Your task to perform on an android device: find which apps use the phone's location Image 0: 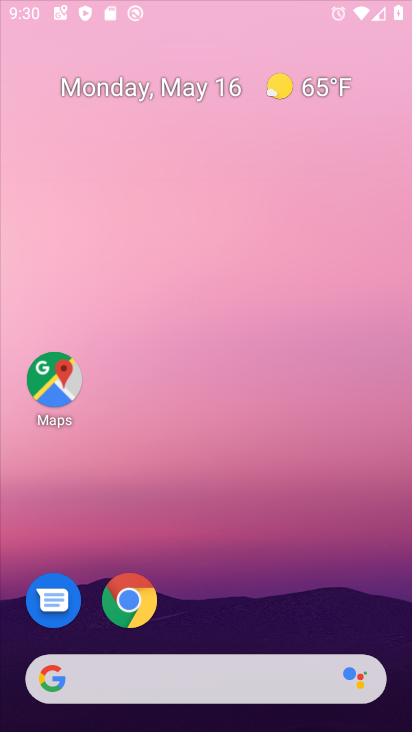
Step 0: drag from (287, 114) to (293, 78)
Your task to perform on an android device: find which apps use the phone's location Image 1: 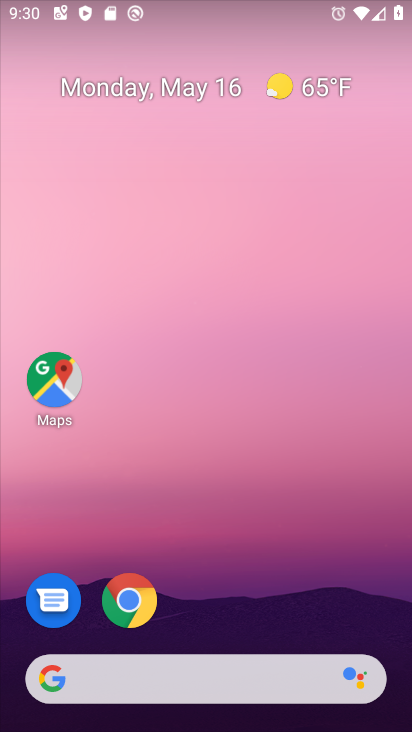
Step 1: drag from (204, 626) to (238, 4)
Your task to perform on an android device: find which apps use the phone's location Image 2: 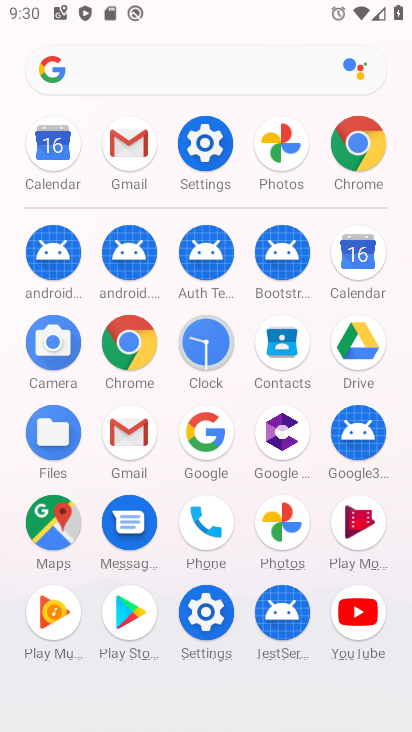
Step 2: click (208, 134)
Your task to perform on an android device: find which apps use the phone's location Image 3: 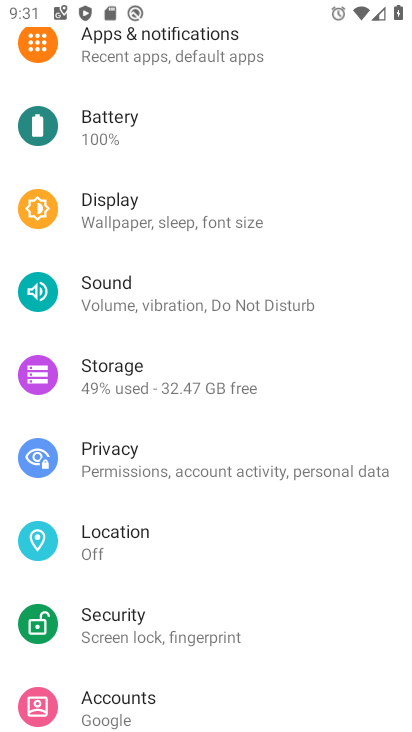
Step 3: click (138, 553)
Your task to perform on an android device: find which apps use the phone's location Image 4: 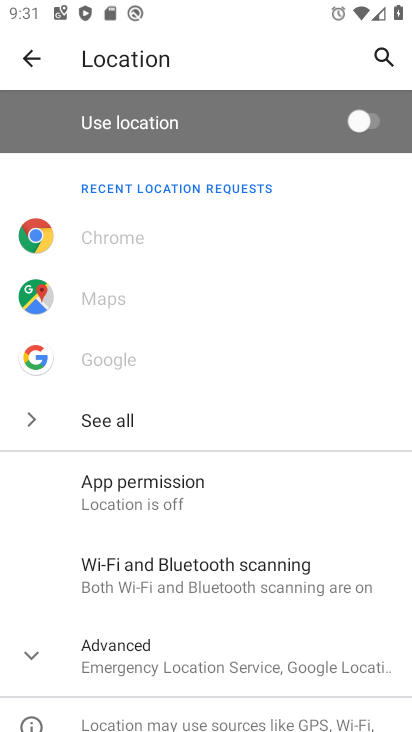
Step 4: click (179, 494)
Your task to perform on an android device: find which apps use the phone's location Image 5: 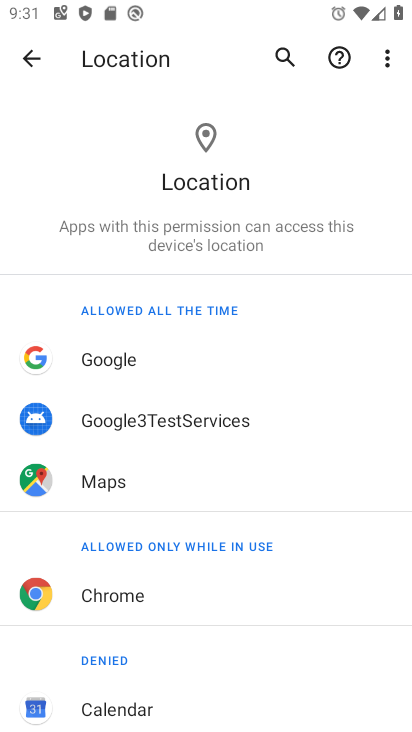
Step 5: task complete